Your task to perform on an android device: turn off priority inbox in the gmail app Image 0: 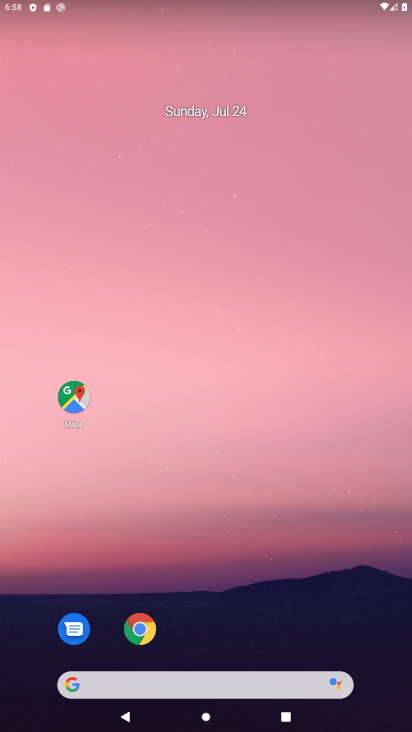
Step 0: drag from (353, 648) to (181, 58)
Your task to perform on an android device: turn off priority inbox in the gmail app Image 1: 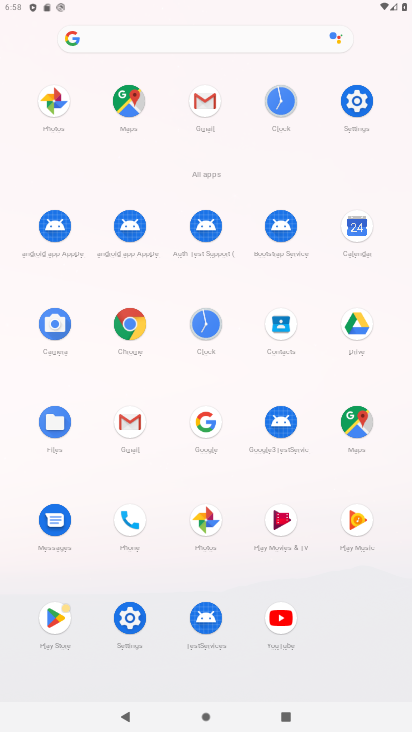
Step 1: click (120, 426)
Your task to perform on an android device: turn off priority inbox in the gmail app Image 2: 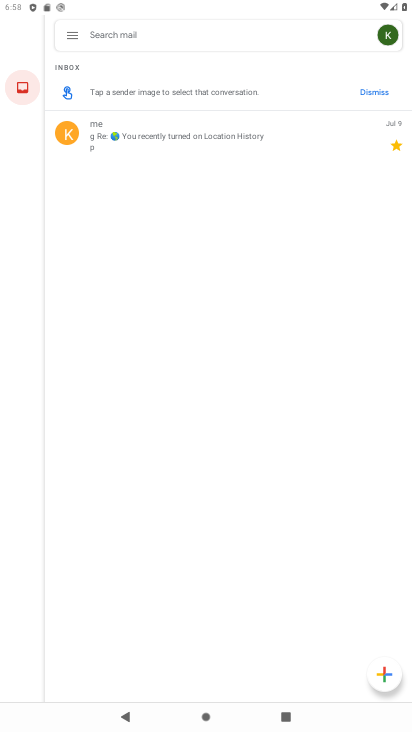
Step 2: click (70, 34)
Your task to perform on an android device: turn off priority inbox in the gmail app Image 3: 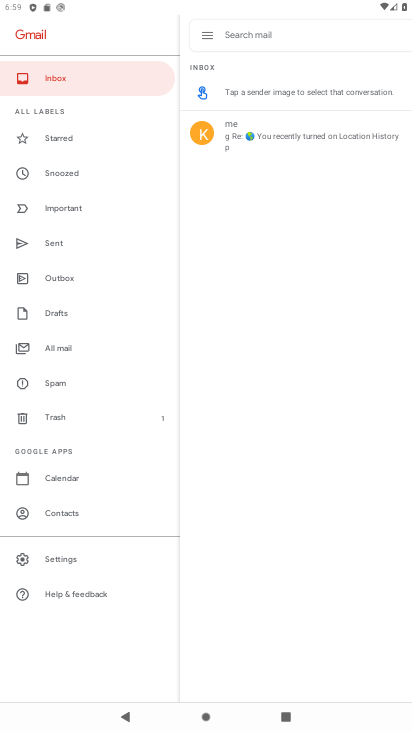
Step 3: click (82, 551)
Your task to perform on an android device: turn off priority inbox in the gmail app Image 4: 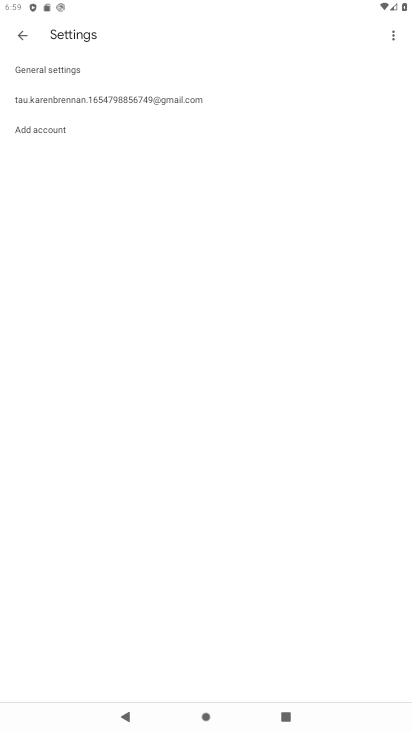
Step 4: click (114, 105)
Your task to perform on an android device: turn off priority inbox in the gmail app Image 5: 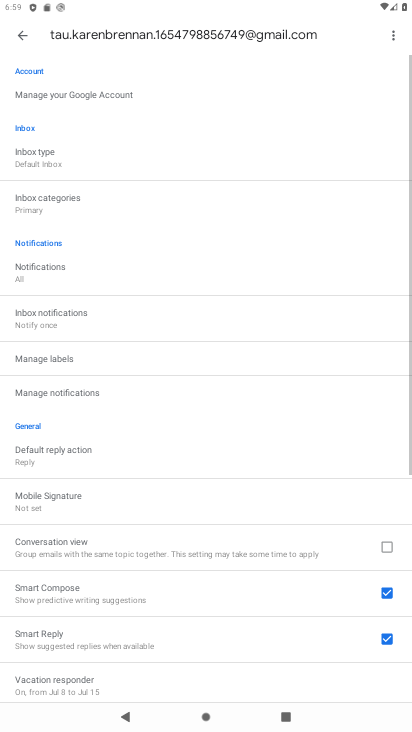
Step 5: click (39, 164)
Your task to perform on an android device: turn off priority inbox in the gmail app Image 6: 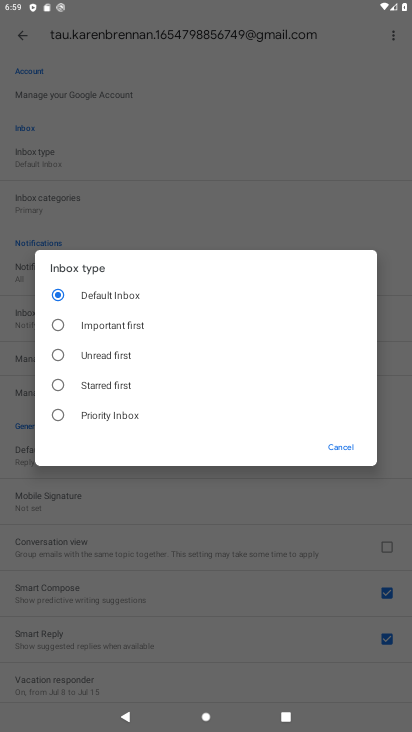
Step 6: task complete